Your task to perform on an android device: turn off airplane mode Image 0: 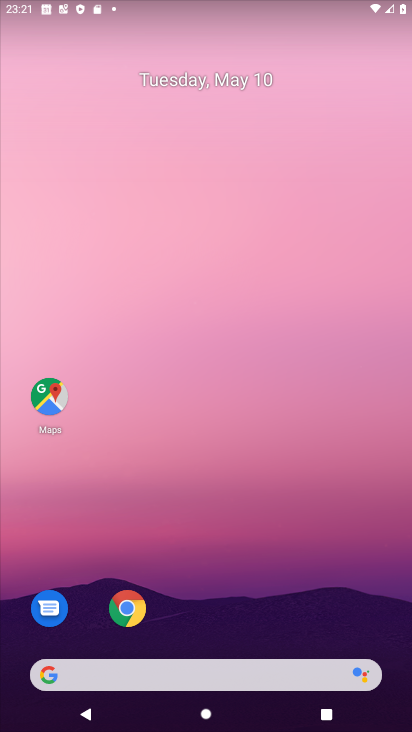
Step 0: drag from (235, 629) to (233, 161)
Your task to perform on an android device: turn off airplane mode Image 1: 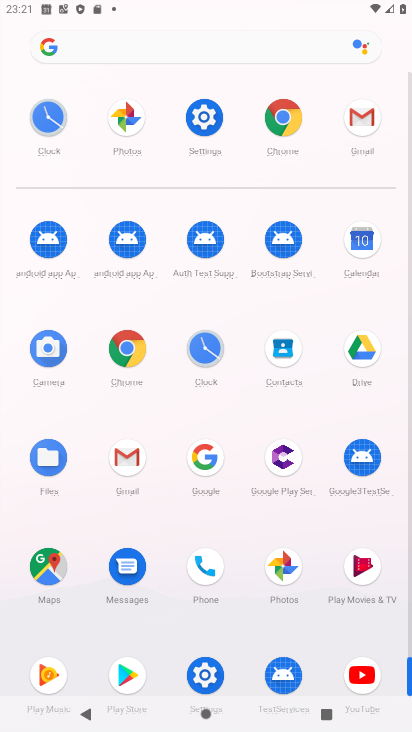
Step 1: click (199, 109)
Your task to perform on an android device: turn off airplane mode Image 2: 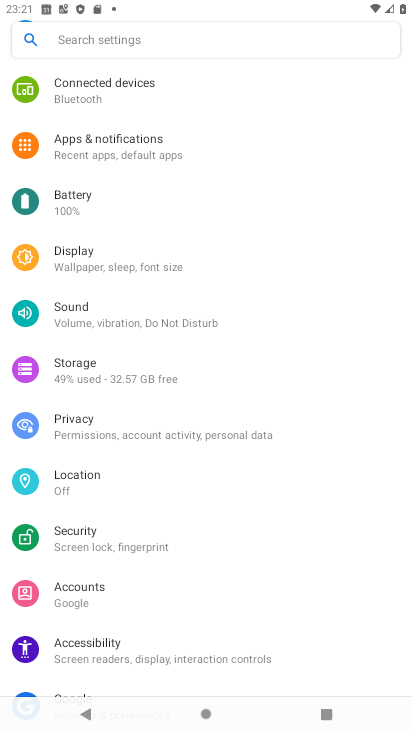
Step 2: drag from (117, 103) to (112, 525)
Your task to perform on an android device: turn off airplane mode Image 3: 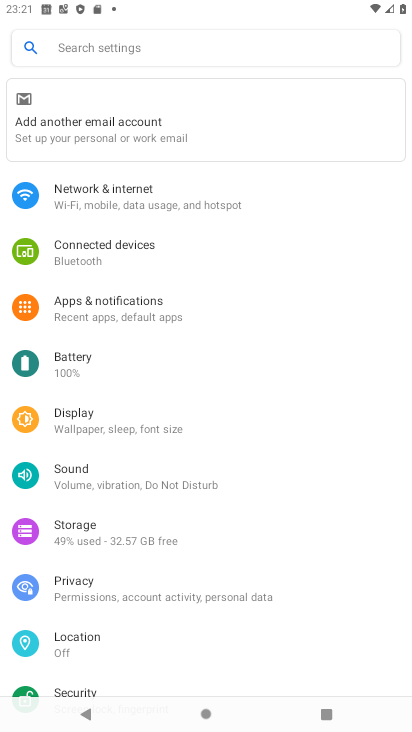
Step 3: click (126, 187)
Your task to perform on an android device: turn off airplane mode Image 4: 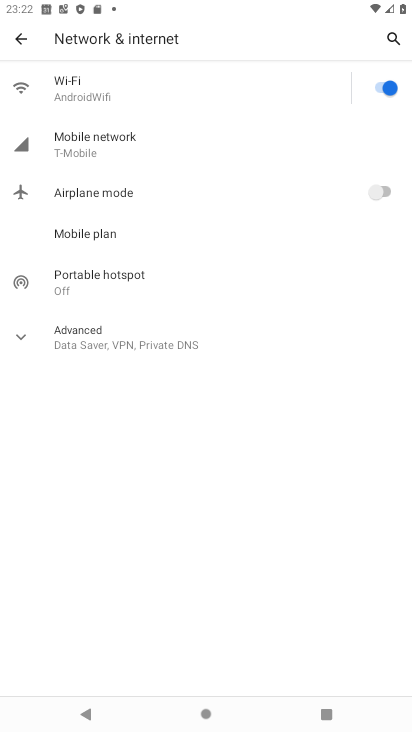
Step 4: click (378, 83)
Your task to perform on an android device: turn off airplane mode Image 5: 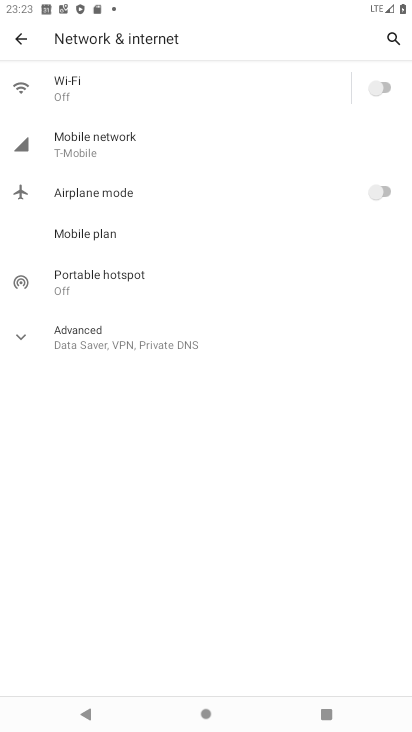
Step 5: task complete